Your task to perform on an android device: turn on location history Image 0: 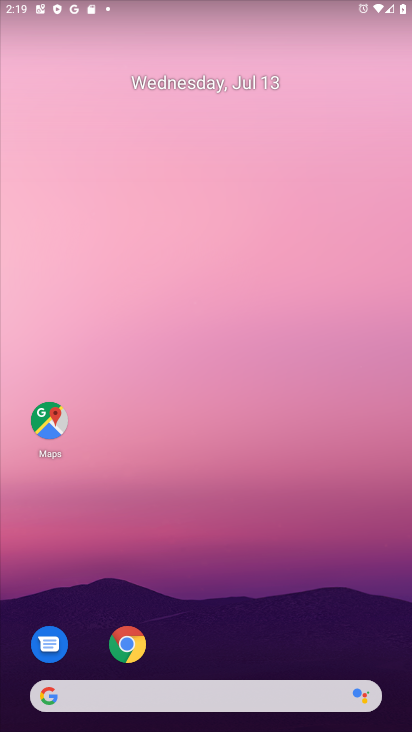
Step 0: drag from (190, 660) to (153, 200)
Your task to perform on an android device: turn on location history Image 1: 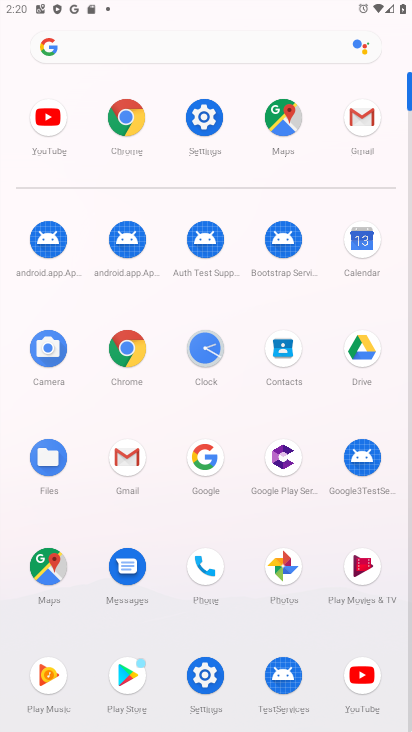
Step 1: click (216, 122)
Your task to perform on an android device: turn on location history Image 2: 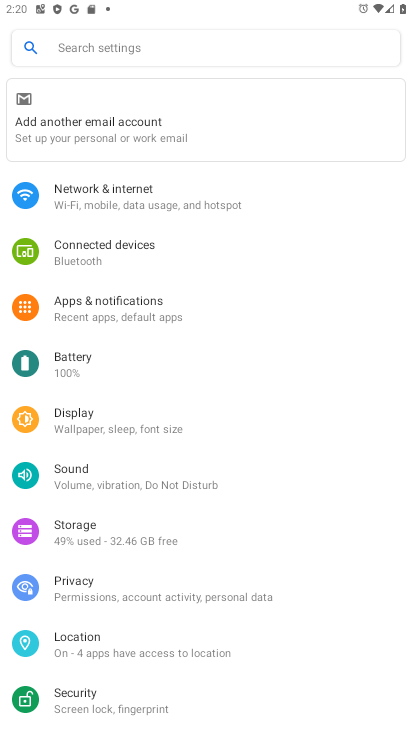
Step 2: click (73, 624)
Your task to perform on an android device: turn on location history Image 3: 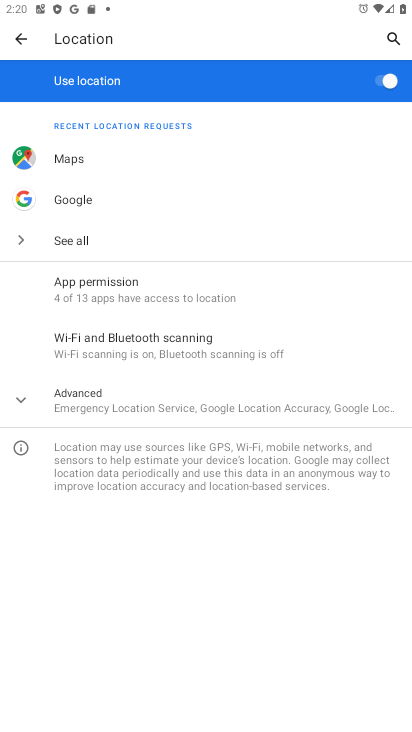
Step 3: click (85, 394)
Your task to perform on an android device: turn on location history Image 4: 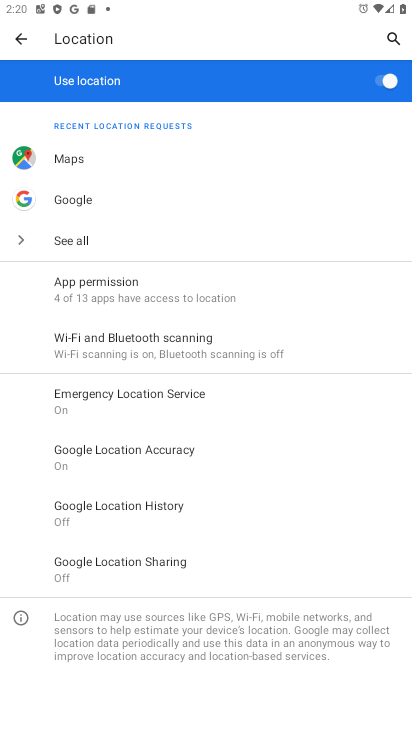
Step 4: click (138, 501)
Your task to perform on an android device: turn on location history Image 5: 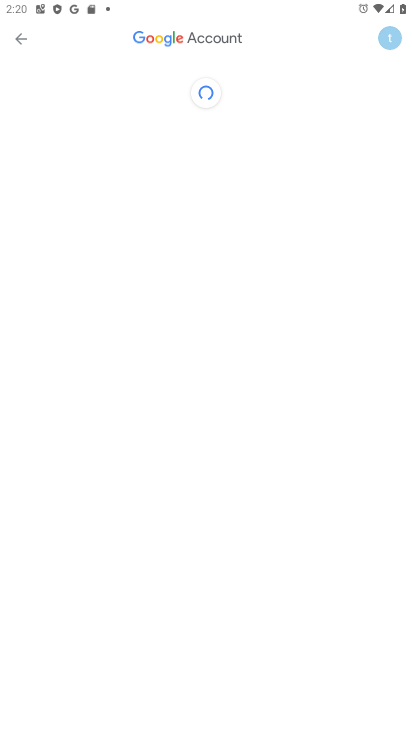
Step 5: task complete